Your task to perform on an android device: toggle translation in the chrome app Image 0: 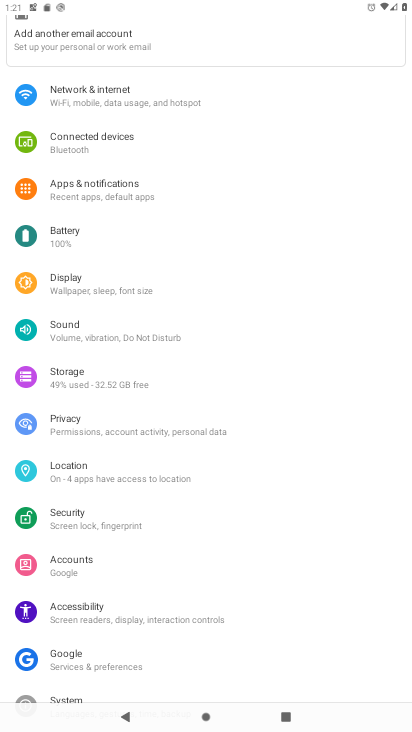
Step 0: press home button
Your task to perform on an android device: toggle translation in the chrome app Image 1: 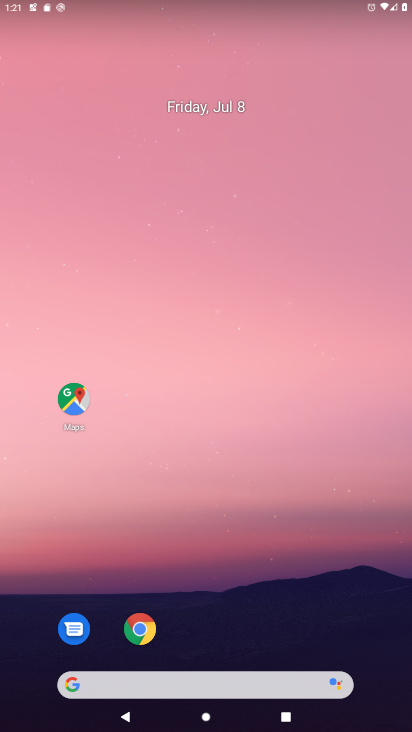
Step 1: click (136, 626)
Your task to perform on an android device: toggle translation in the chrome app Image 2: 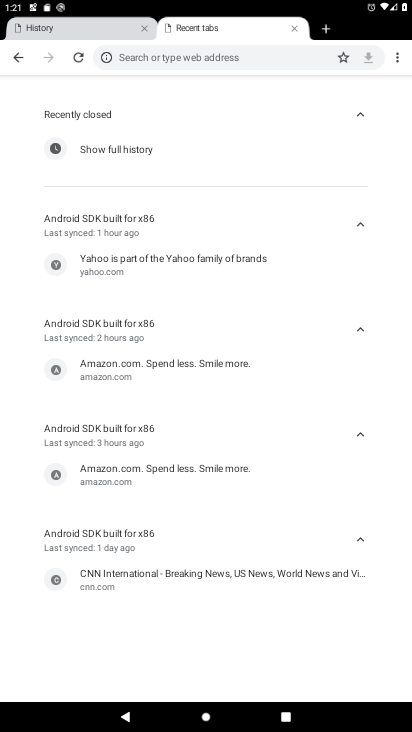
Step 2: click (392, 57)
Your task to perform on an android device: toggle translation in the chrome app Image 3: 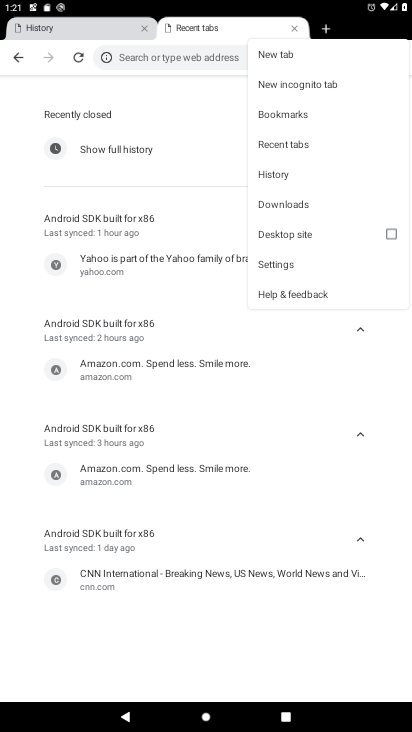
Step 3: click (281, 263)
Your task to perform on an android device: toggle translation in the chrome app Image 4: 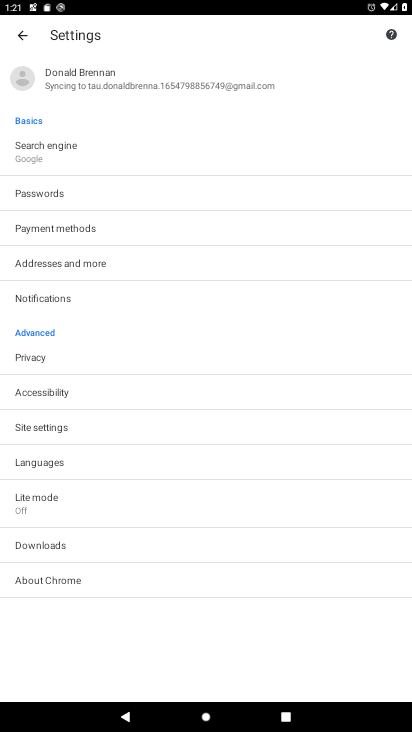
Step 4: click (55, 456)
Your task to perform on an android device: toggle translation in the chrome app Image 5: 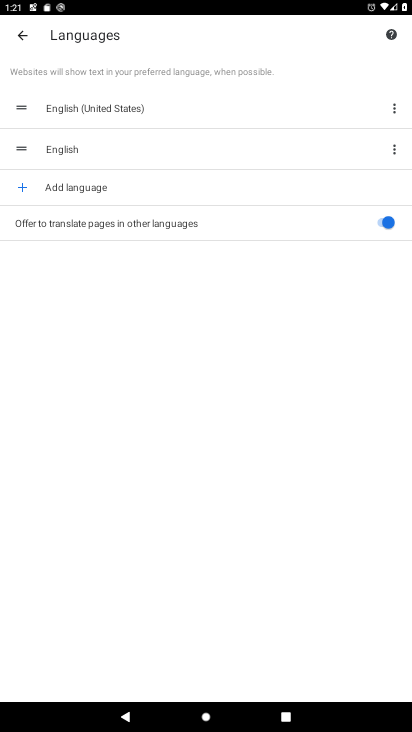
Step 5: click (387, 229)
Your task to perform on an android device: toggle translation in the chrome app Image 6: 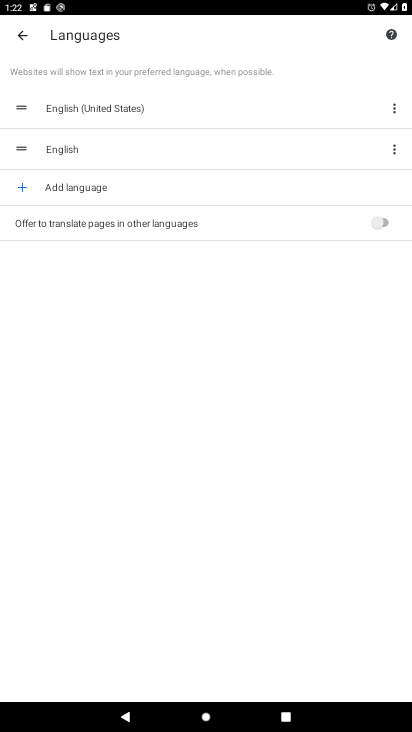
Step 6: task complete